Your task to perform on an android device: open app "Lyft - Rideshare, Bikes, Scooters & Transit" (install if not already installed) Image 0: 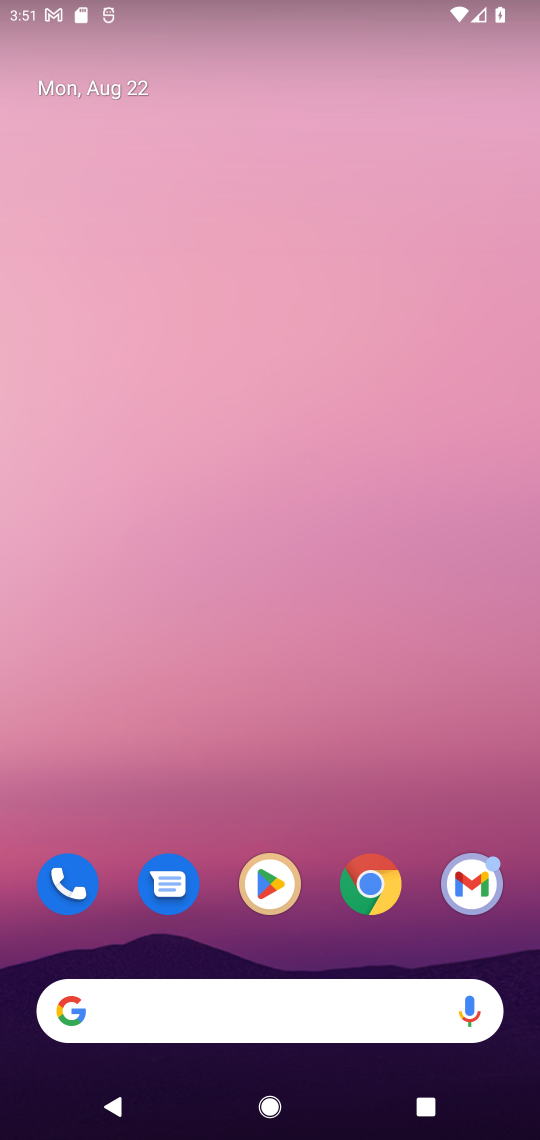
Step 0: click (258, 883)
Your task to perform on an android device: open app "Lyft - Rideshare, Bikes, Scooters & Transit" (install if not already installed) Image 1: 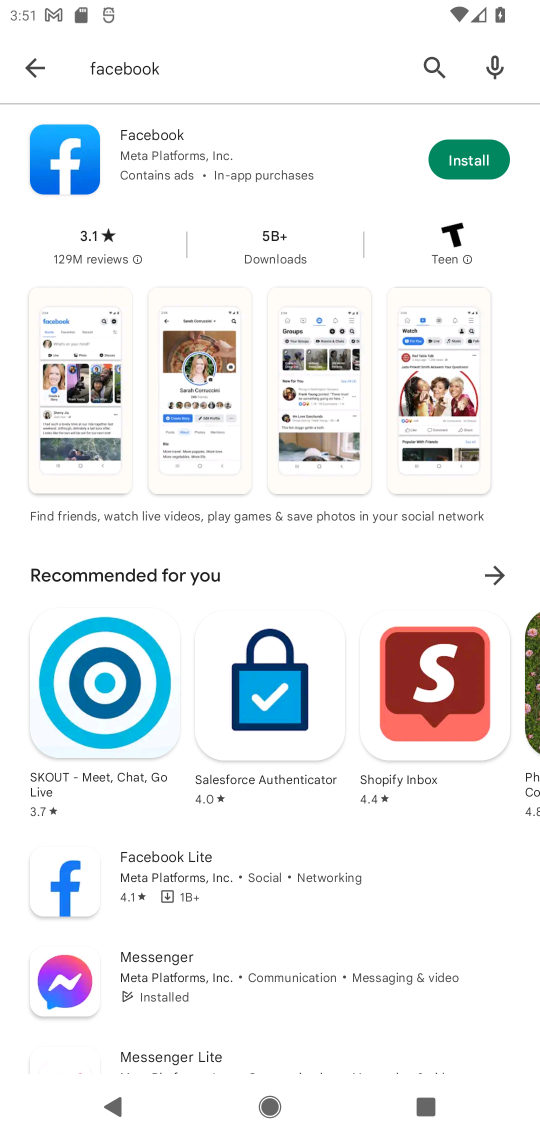
Step 1: click (193, 92)
Your task to perform on an android device: open app "Lyft - Rideshare, Bikes, Scooters & Transit" (install if not already installed) Image 2: 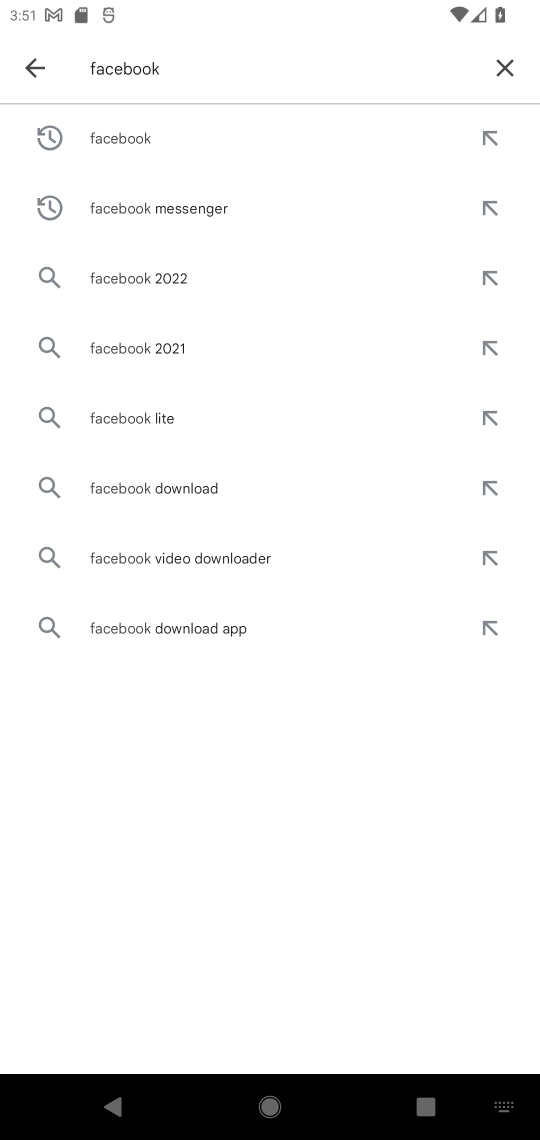
Step 2: click (506, 51)
Your task to perform on an android device: open app "Lyft - Rideshare, Bikes, Scooters & Transit" (install if not already installed) Image 3: 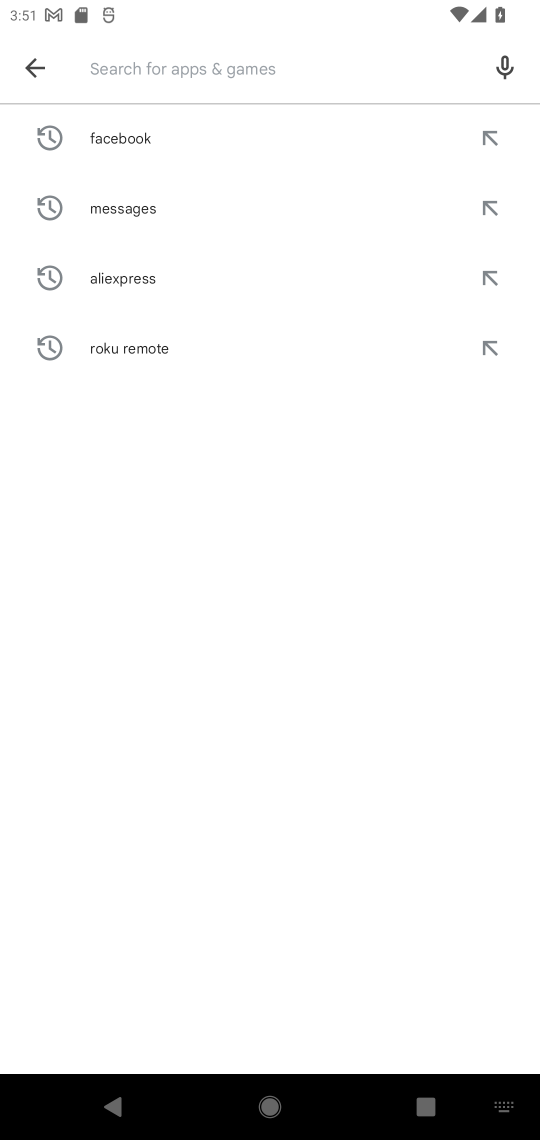
Step 3: type "lyft"
Your task to perform on an android device: open app "Lyft - Rideshare, Bikes, Scooters & Transit" (install if not already installed) Image 4: 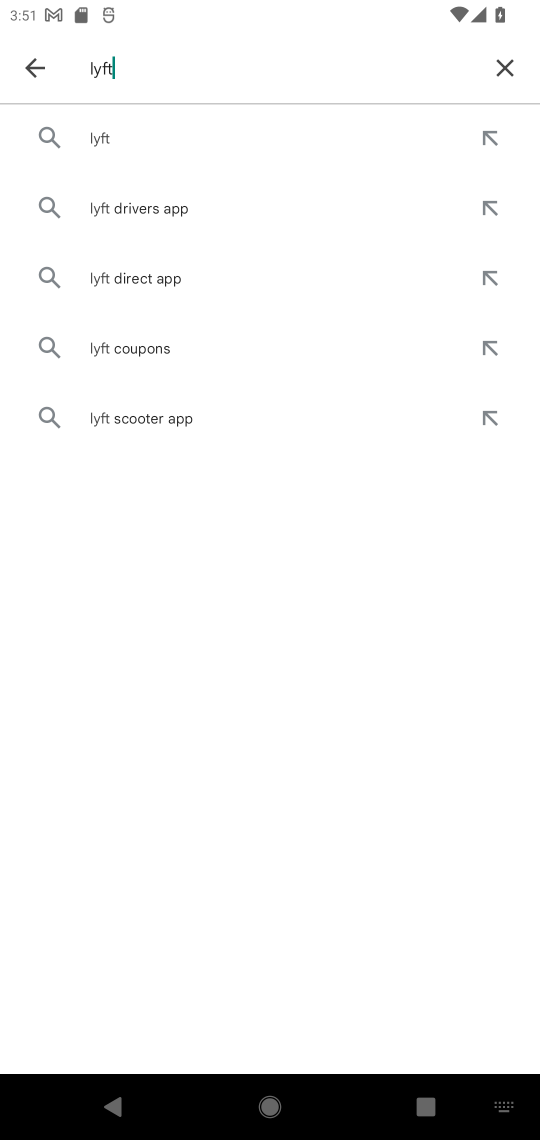
Step 4: click (134, 138)
Your task to perform on an android device: open app "Lyft - Rideshare, Bikes, Scooters & Transit" (install if not already installed) Image 5: 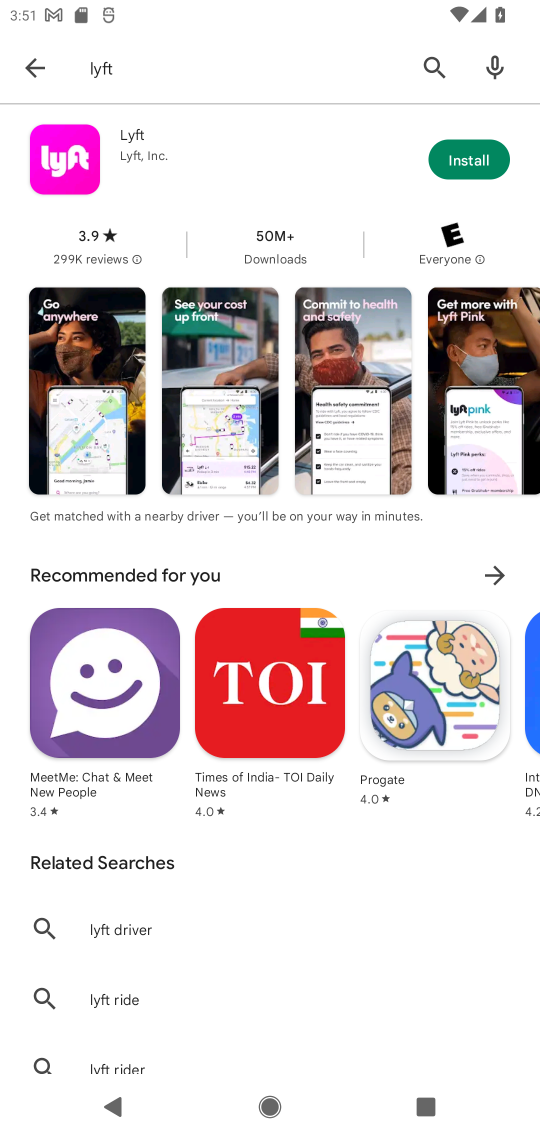
Step 5: click (462, 145)
Your task to perform on an android device: open app "Lyft - Rideshare, Bikes, Scooters & Transit" (install if not already installed) Image 6: 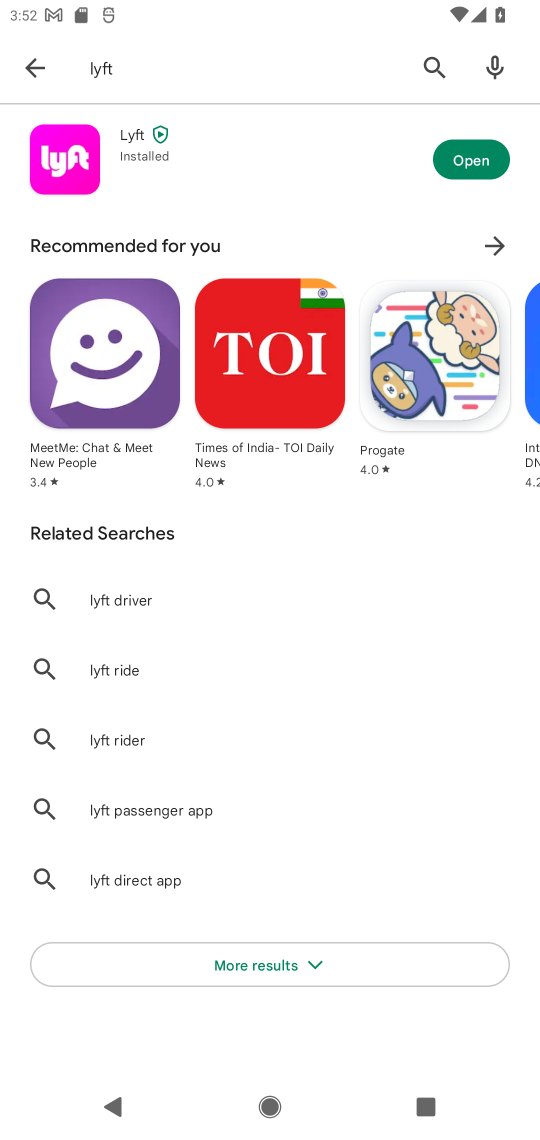
Step 6: click (479, 154)
Your task to perform on an android device: open app "Lyft - Rideshare, Bikes, Scooters & Transit" (install if not already installed) Image 7: 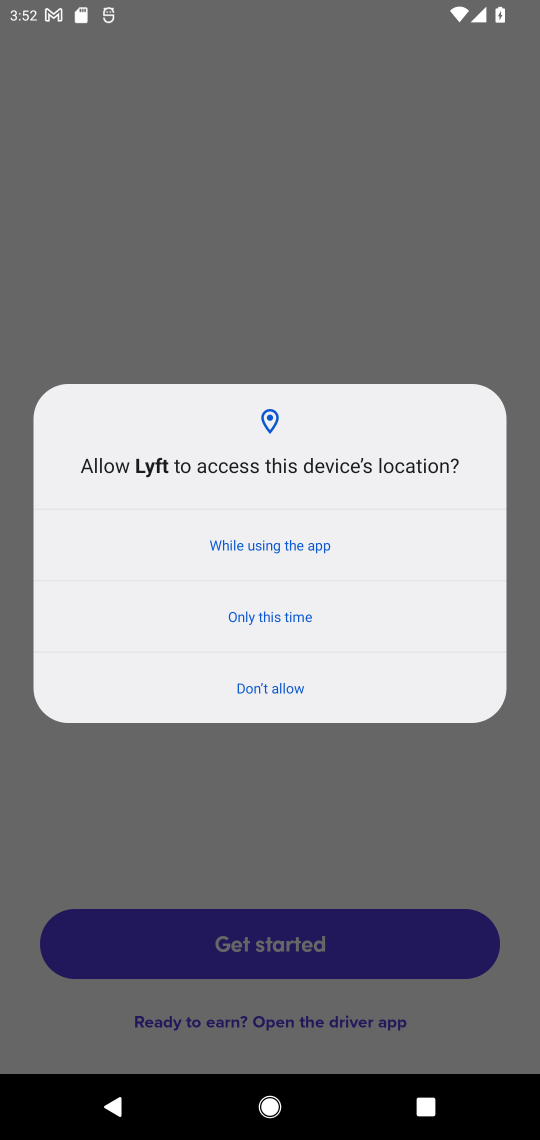
Step 7: click (333, 539)
Your task to perform on an android device: open app "Lyft - Rideshare, Bikes, Scooters & Transit" (install if not already installed) Image 8: 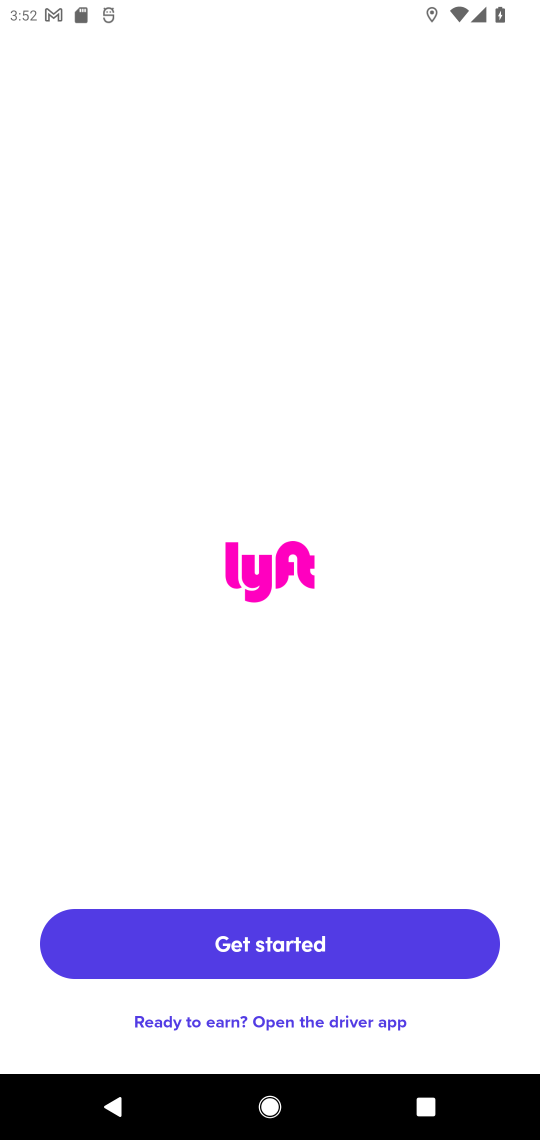
Step 8: click (357, 958)
Your task to perform on an android device: open app "Lyft - Rideshare, Bikes, Scooters & Transit" (install if not already installed) Image 9: 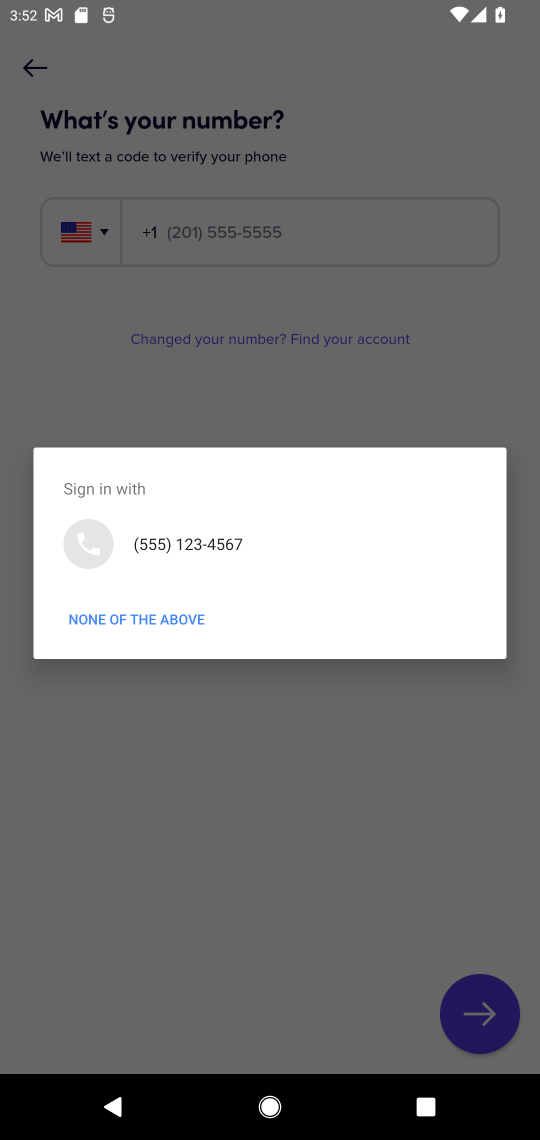
Step 9: click (213, 540)
Your task to perform on an android device: open app "Lyft - Rideshare, Bikes, Scooters & Transit" (install if not already installed) Image 10: 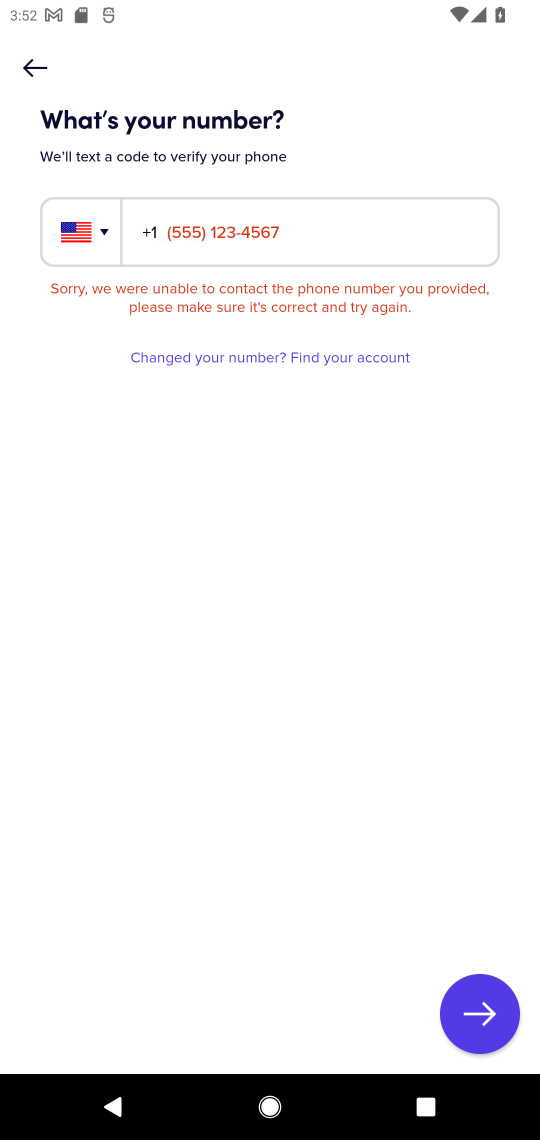
Step 10: task complete